Your task to perform on an android device: Go to ESPN.com Image 0: 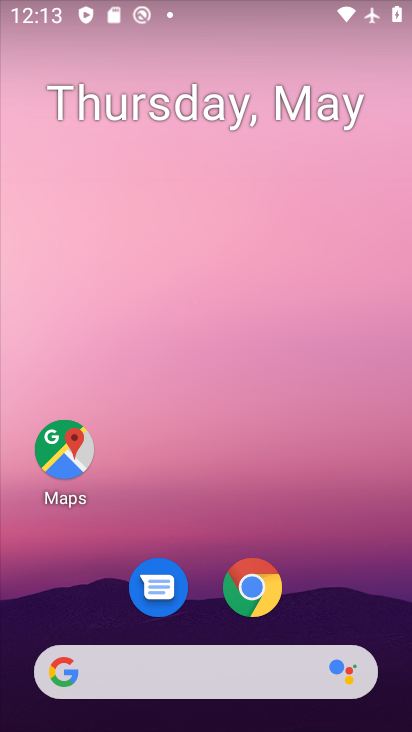
Step 0: drag from (294, 664) to (407, 45)
Your task to perform on an android device: Go to ESPN.com Image 1: 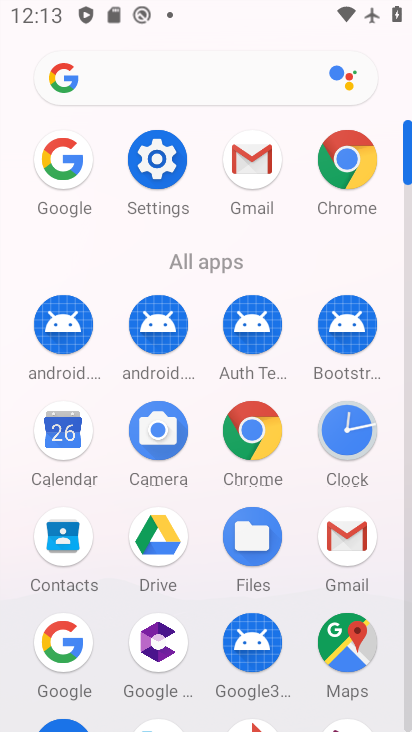
Step 1: click (263, 436)
Your task to perform on an android device: Go to ESPN.com Image 2: 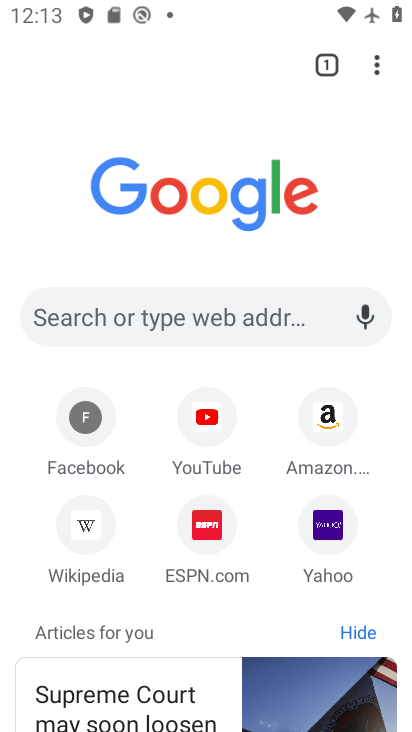
Step 2: click (249, 319)
Your task to perform on an android device: Go to ESPN.com Image 3: 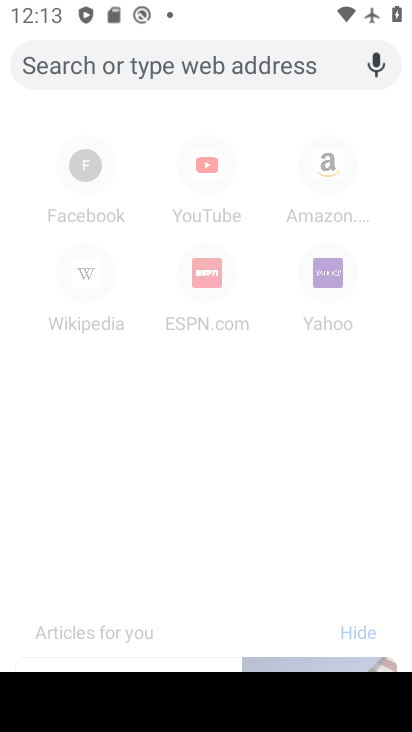
Step 3: type "espn.com"
Your task to perform on an android device: Go to ESPN.com Image 4: 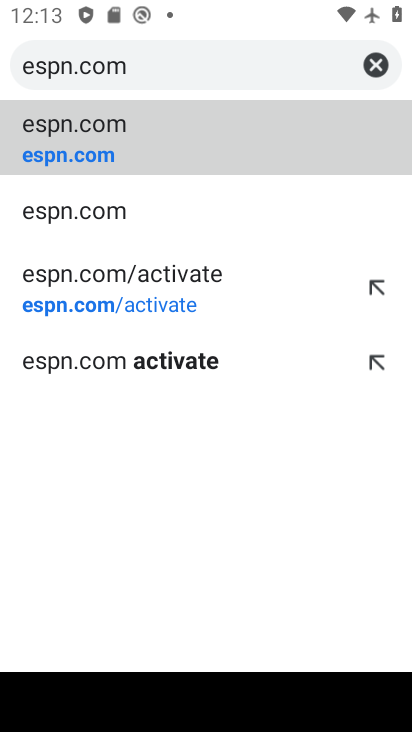
Step 4: click (100, 147)
Your task to perform on an android device: Go to ESPN.com Image 5: 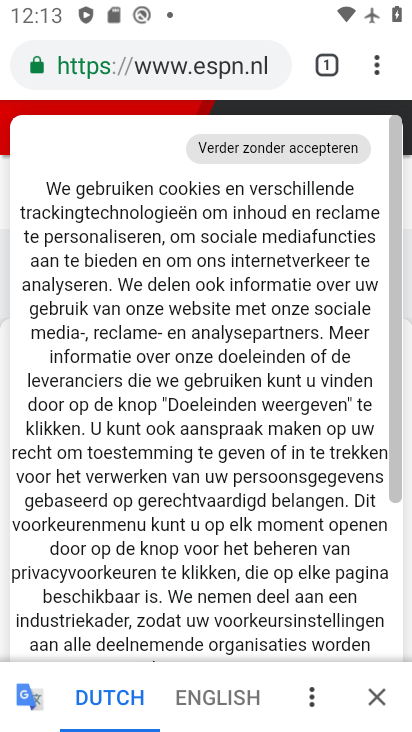
Step 5: task complete